Your task to perform on an android device: install app "Google Calendar" Image 0: 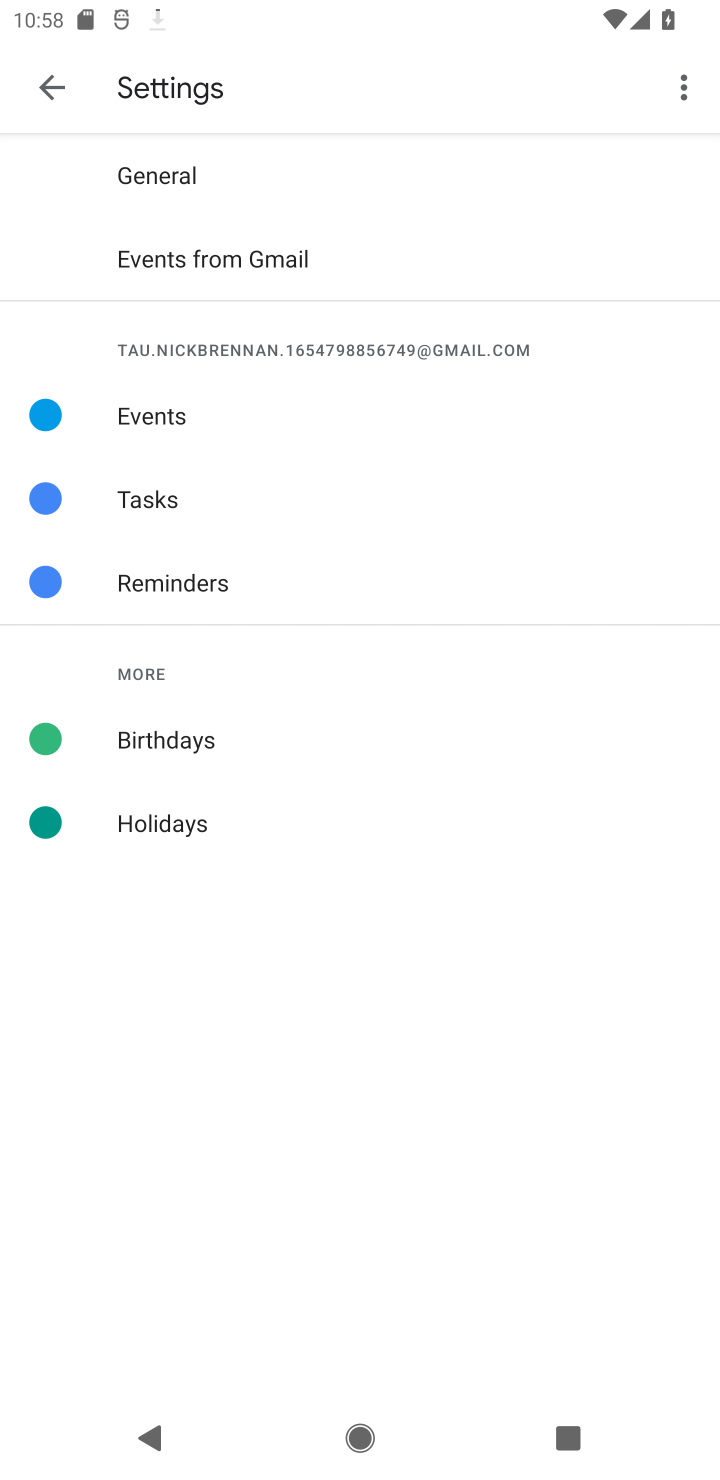
Step 0: press home button
Your task to perform on an android device: install app "Google Calendar" Image 1: 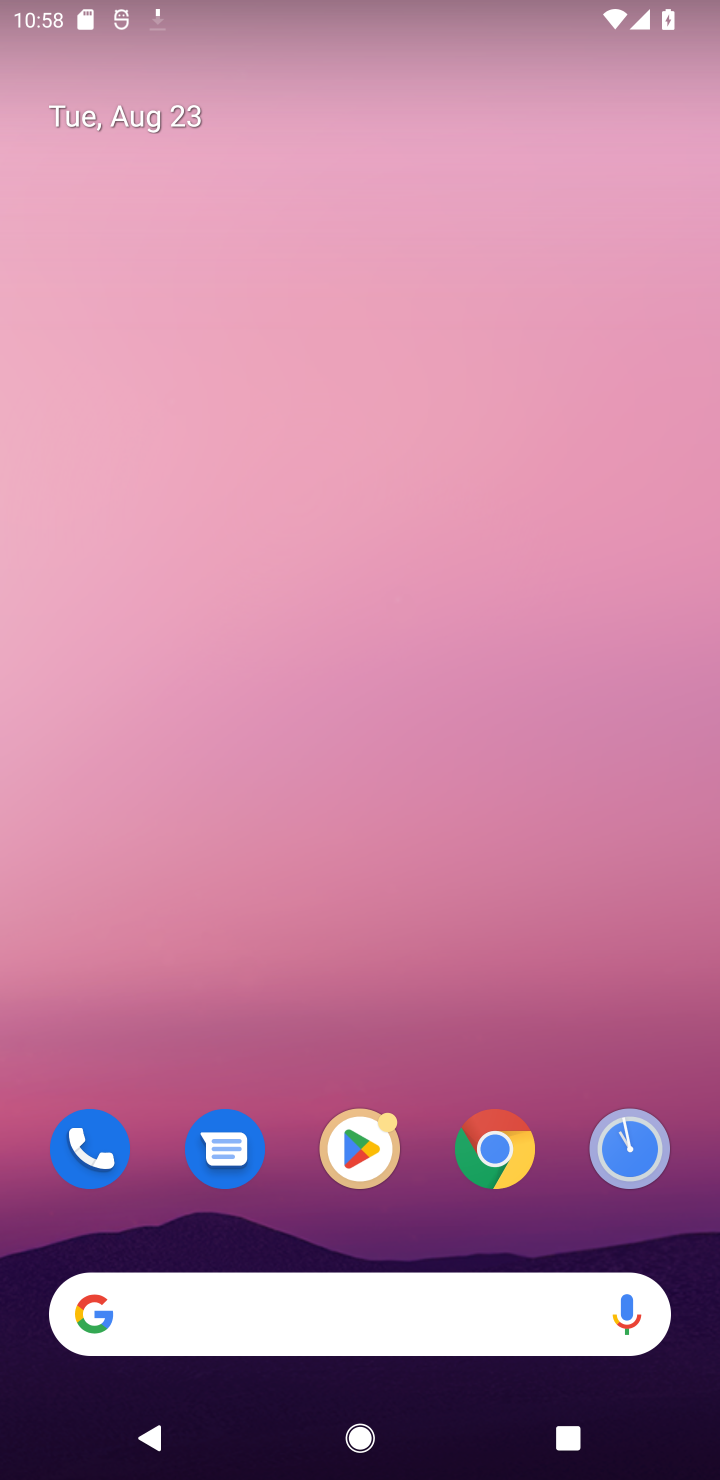
Step 1: click (342, 1159)
Your task to perform on an android device: install app "Google Calendar" Image 2: 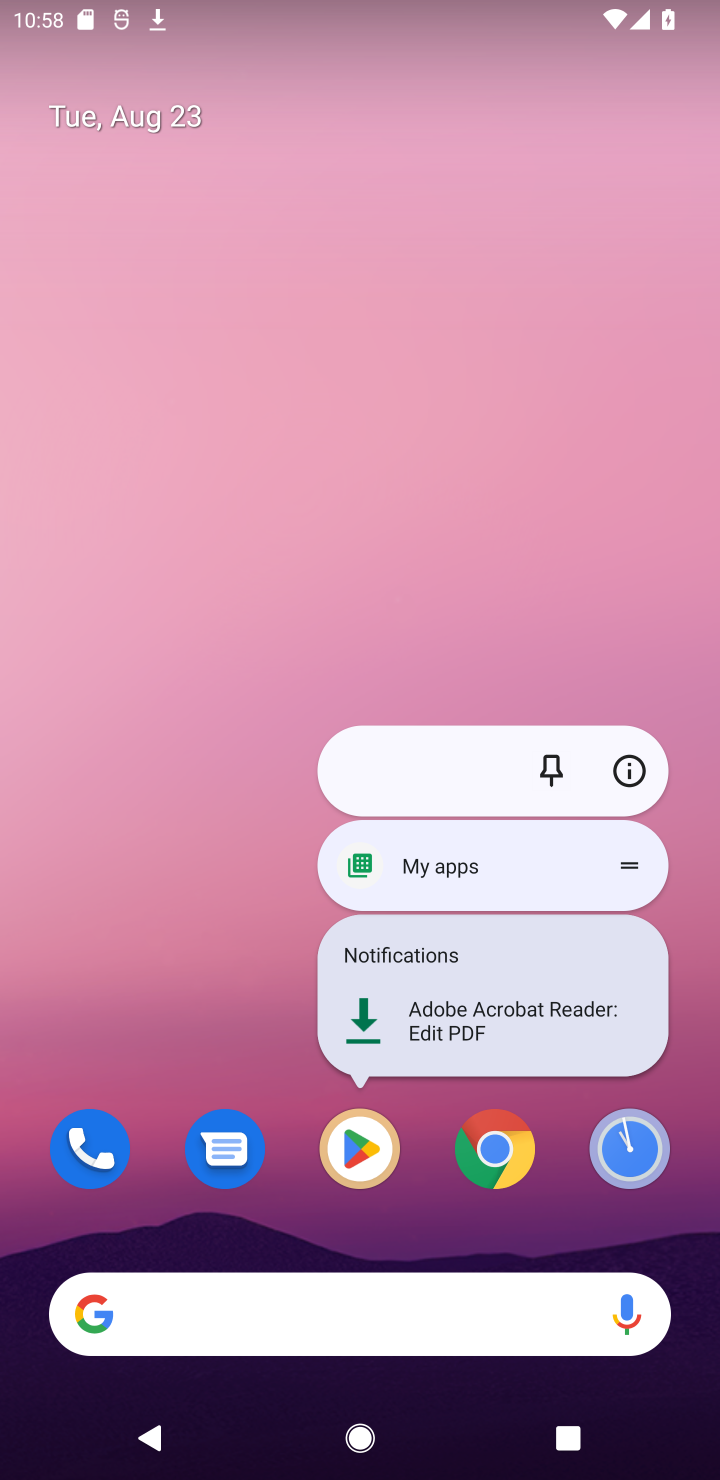
Step 2: click (349, 1176)
Your task to perform on an android device: install app "Google Calendar" Image 3: 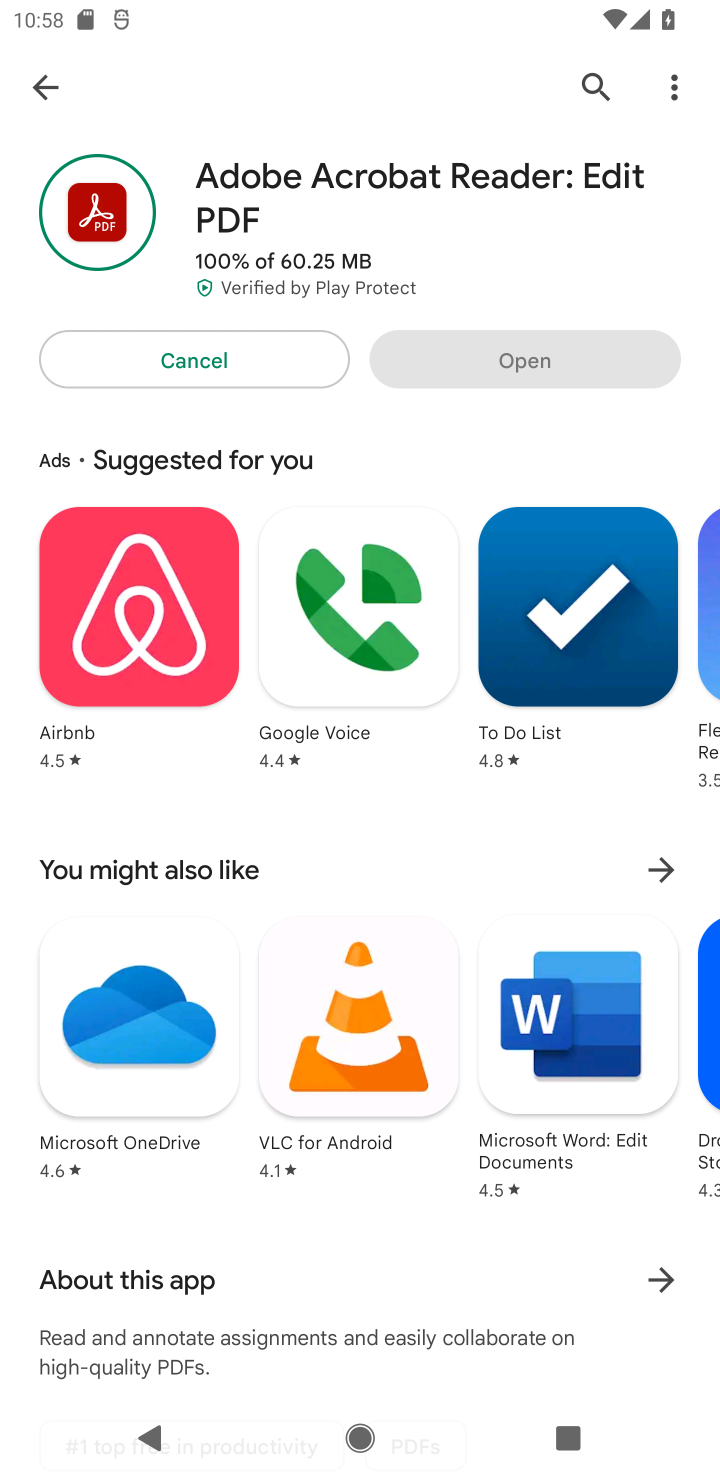
Step 3: click (581, 118)
Your task to perform on an android device: install app "Google Calendar" Image 4: 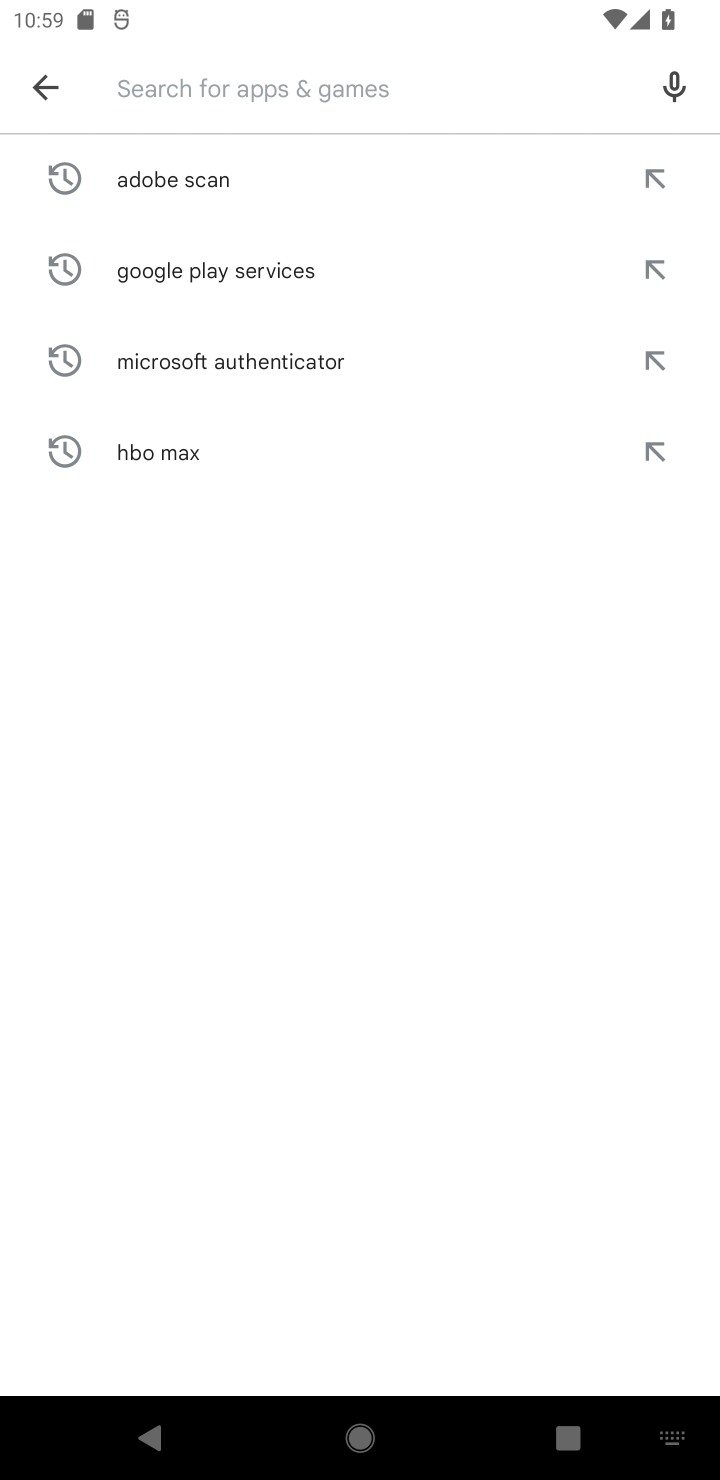
Step 4: type "googfle calendar"
Your task to perform on an android device: install app "Google Calendar" Image 5: 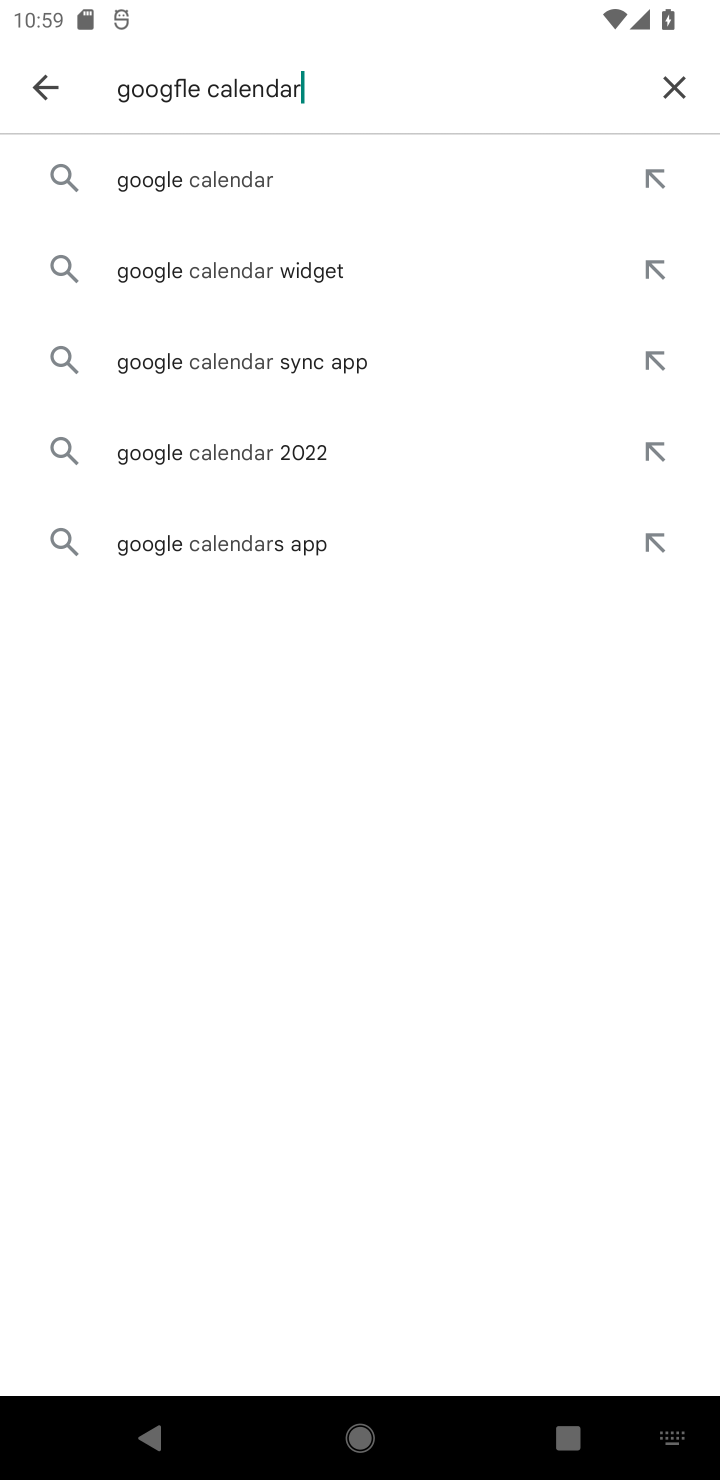
Step 5: click (146, 196)
Your task to perform on an android device: install app "Google Calendar" Image 6: 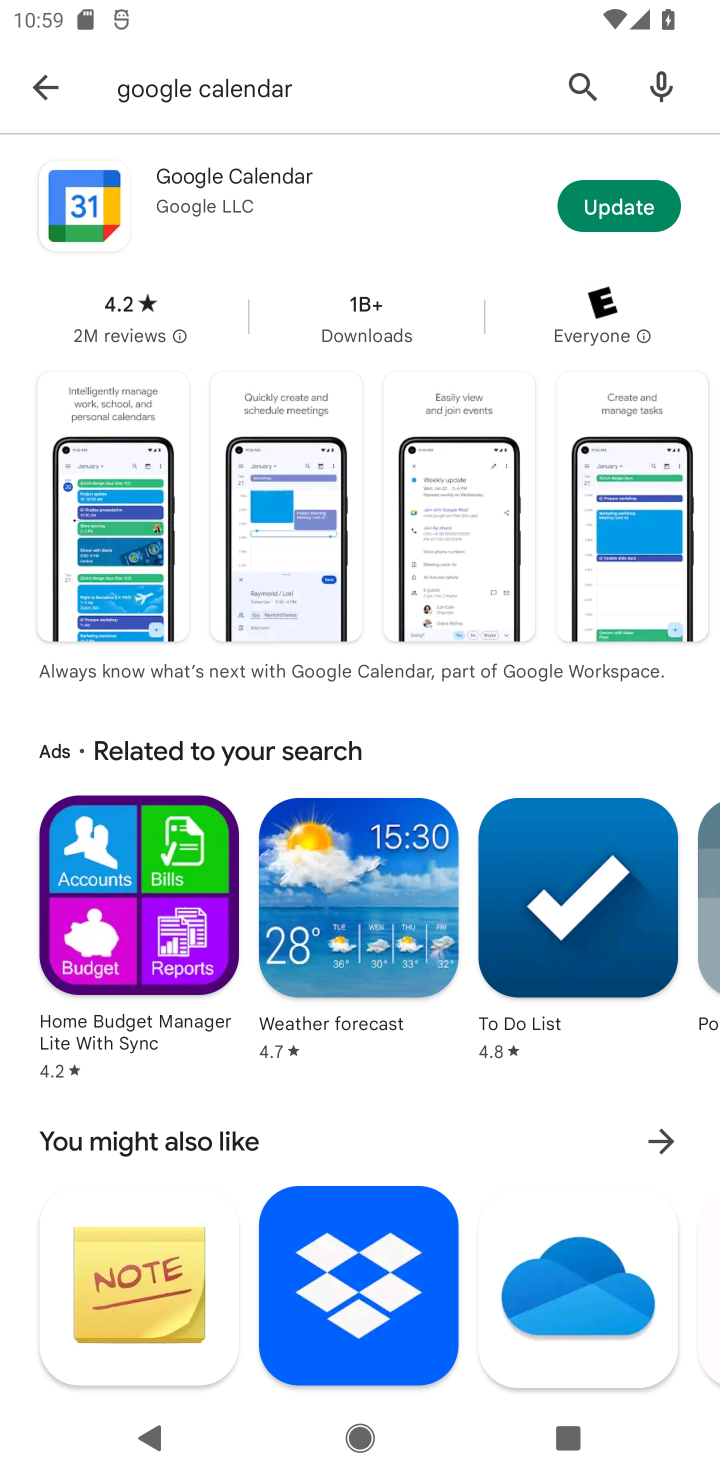
Step 6: click (578, 201)
Your task to perform on an android device: install app "Google Calendar" Image 7: 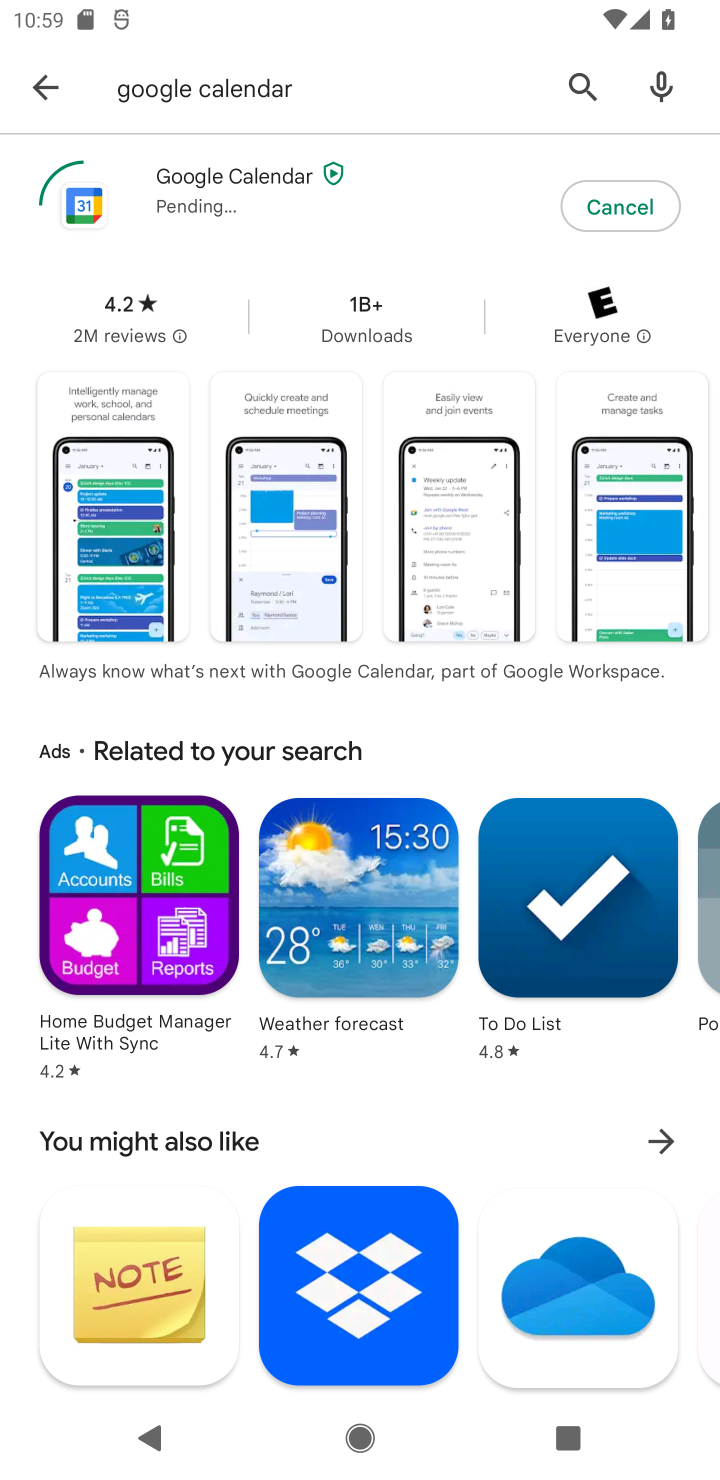
Step 7: task complete